Your task to perform on an android device: Open Google Chrome and click the shortcut for Amazon.com Image 0: 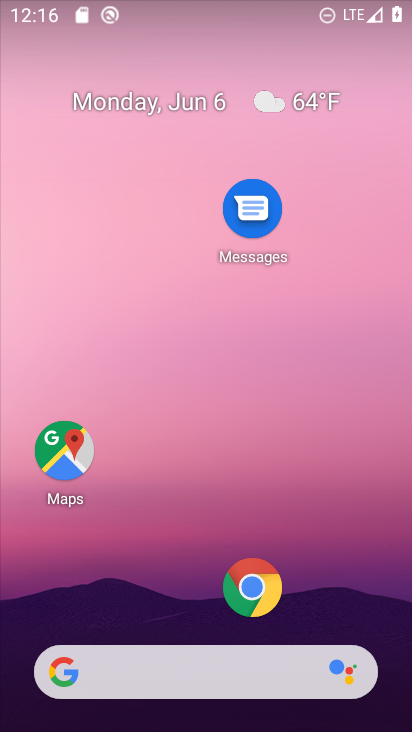
Step 0: click (260, 588)
Your task to perform on an android device: Open Google Chrome and click the shortcut for Amazon.com Image 1: 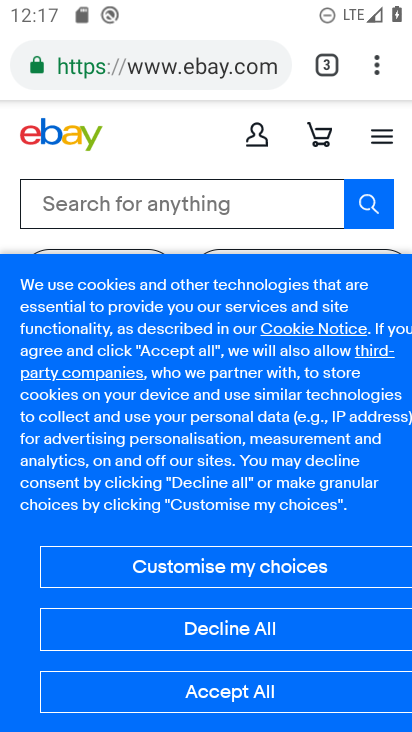
Step 1: click (327, 72)
Your task to perform on an android device: Open Google Chrome and click the shortcut for Amazon.com Image 2: 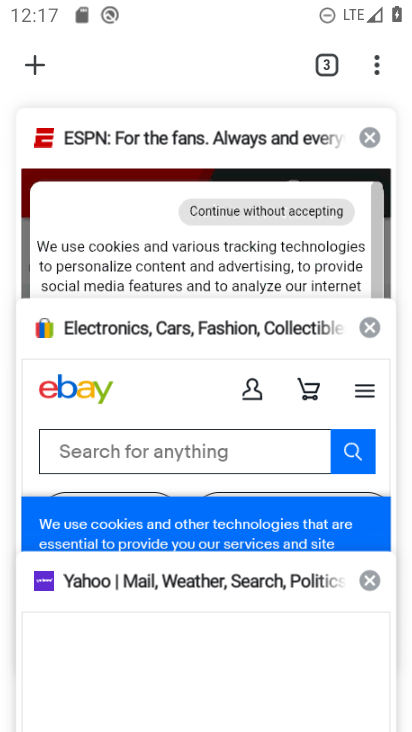
Step 2: click (38, 71)
Your task to perform on an android device: Open Google Chrome and click the shortcut for Amazon.com Image 3: 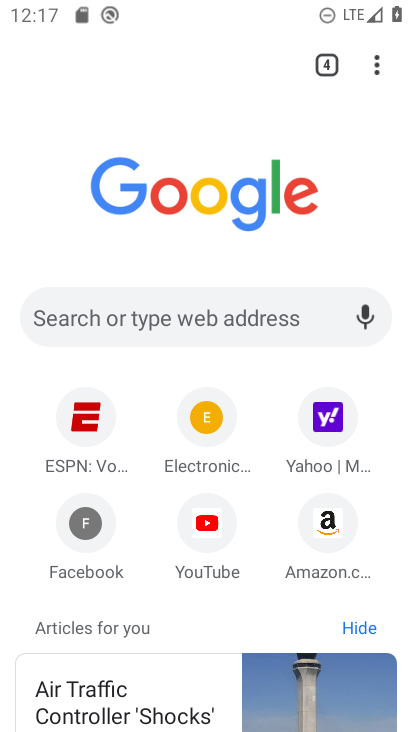
Step 3: click (328, 512)
Your task to perform on an android device: Open Google Chrome and click the shortcut for Amazon.com Image 4: 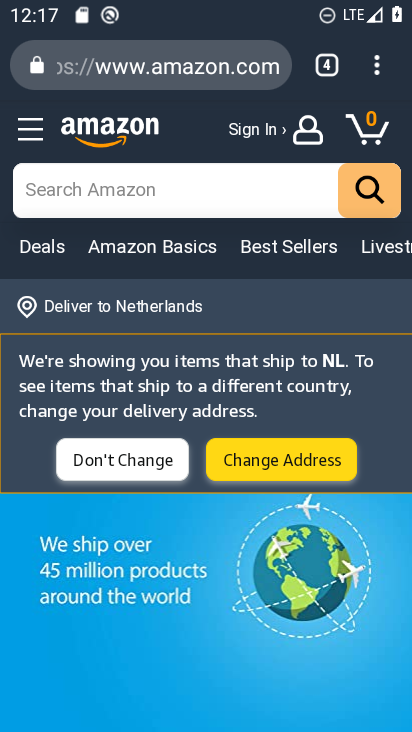
Step 4: task complete